Your task to perform on an android device: Open sound settings Image 0: 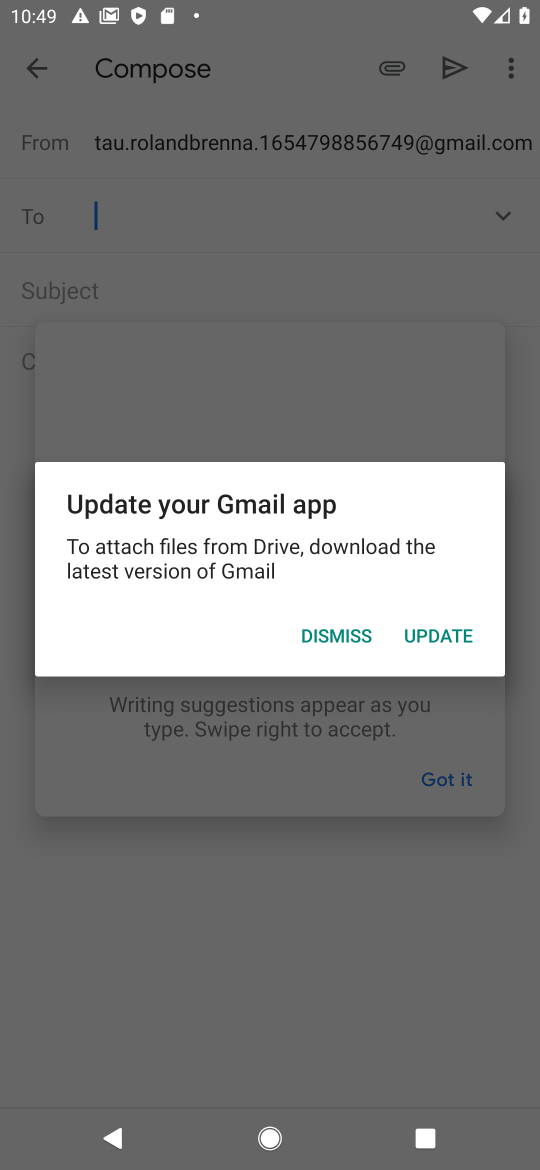
Step 0: press home button
Your task to perform on an android device: Open sound settings Image 1: 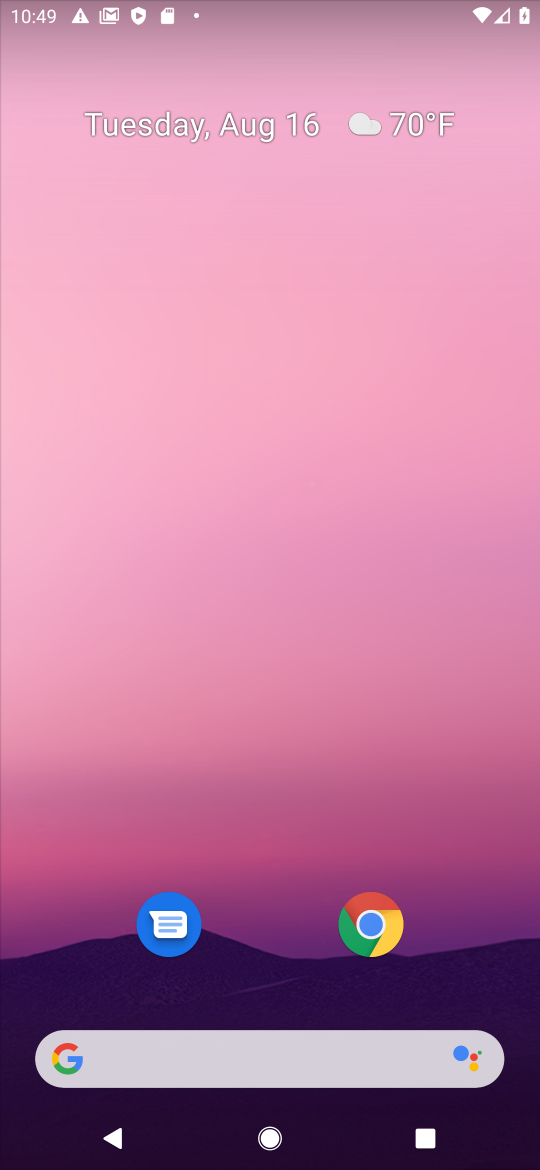
Step 1: drag from (236, 999) to (256, 57)
Your task to perform on an android device: Open sound settings Image 2: 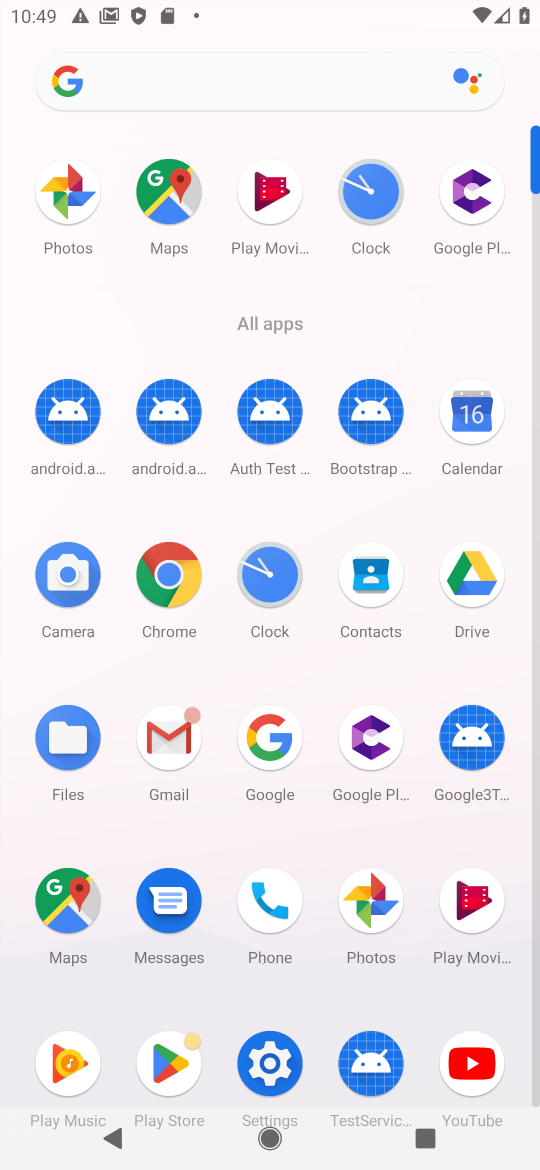
Step 2: click (284, 1061)
Your task to perform on an android device: Open sound settings Image 3: 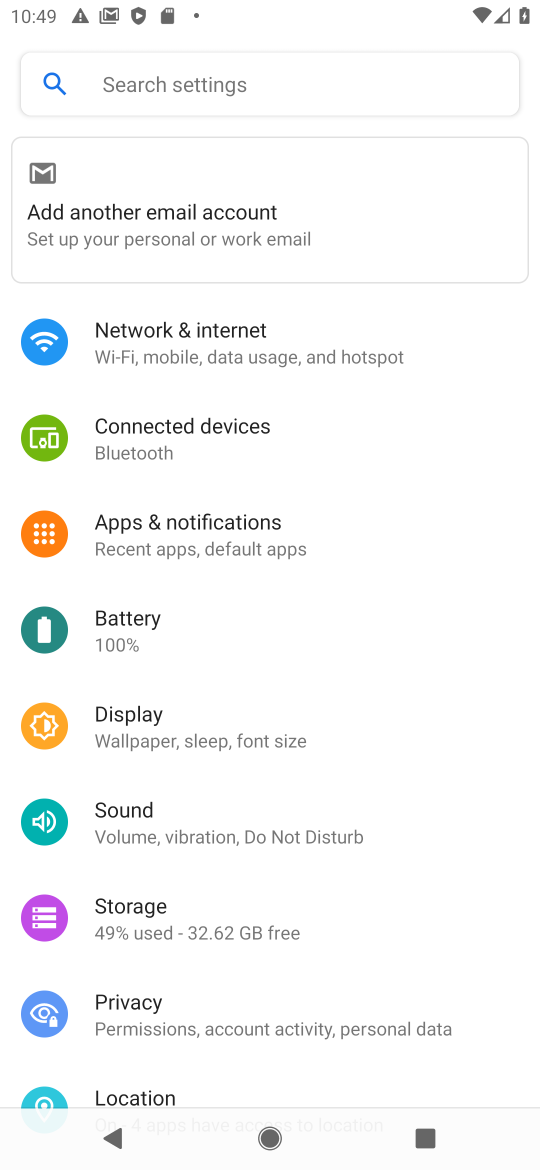
Step 3: click (112, 822)
Your task to perform on an android device: Open sound settings Image 4: 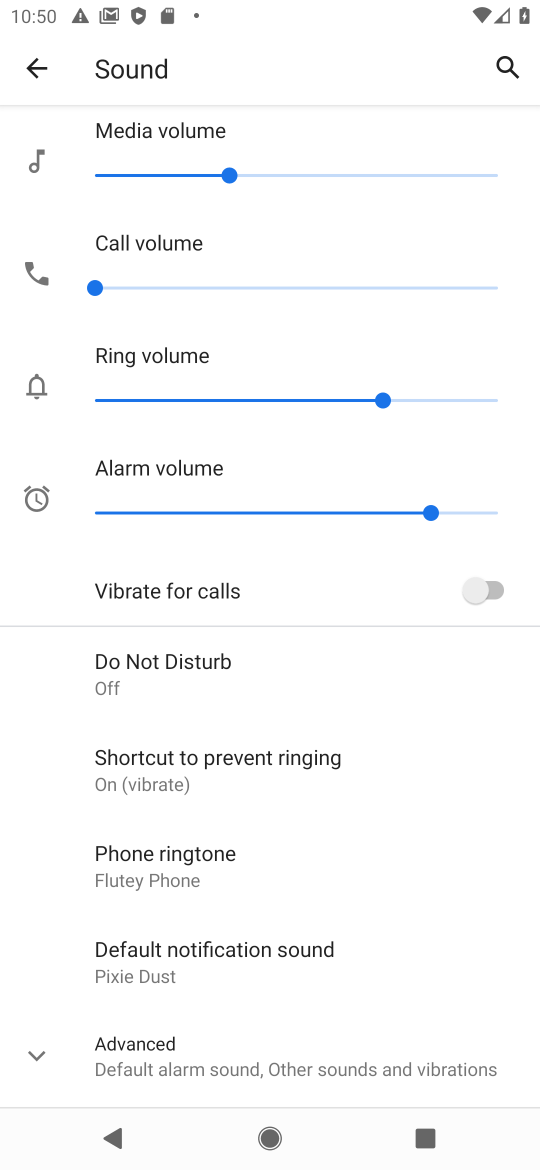
Step 4: task complete